Your task to perform on an android device: turn off location history Image 0: 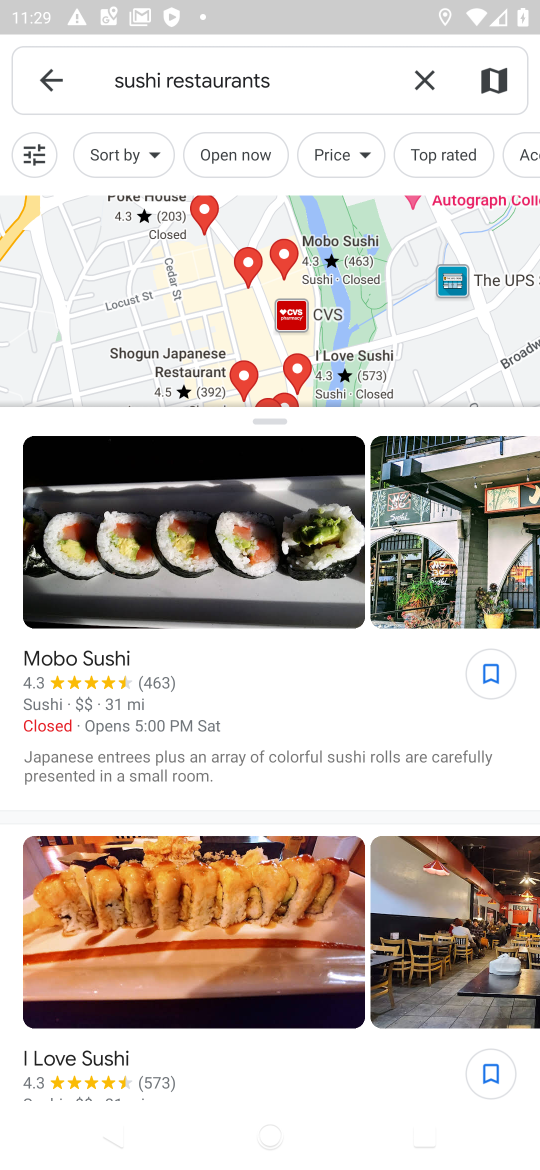
Step 0: press home button
Your task to perform on an android device: turn off location history Image 1: 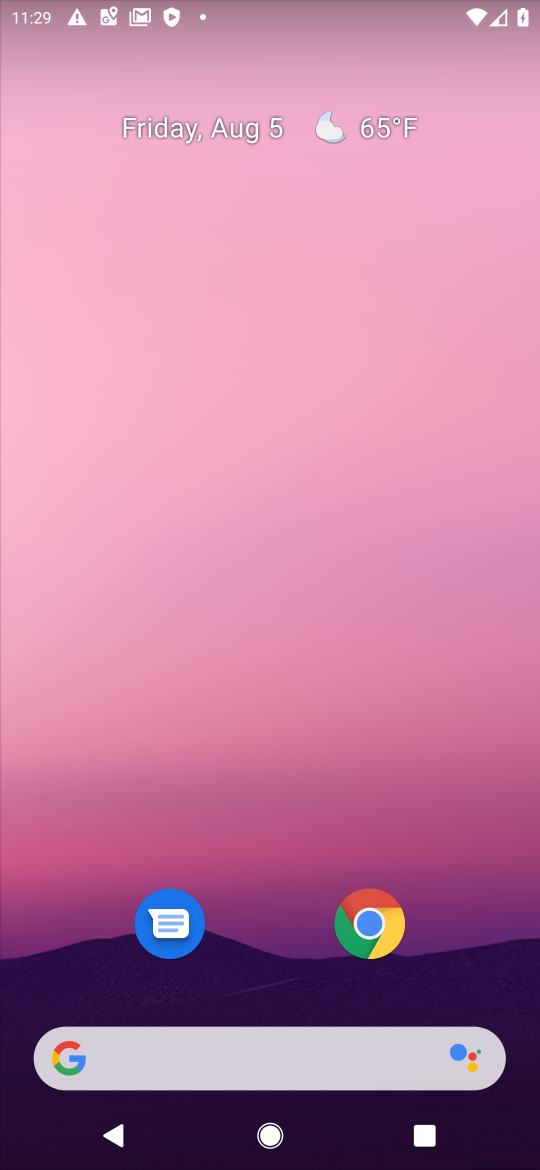
Step 1: drag from (216, 1054) to (161, 24)
Your task to perform on an android device: turn off location history Image 2: 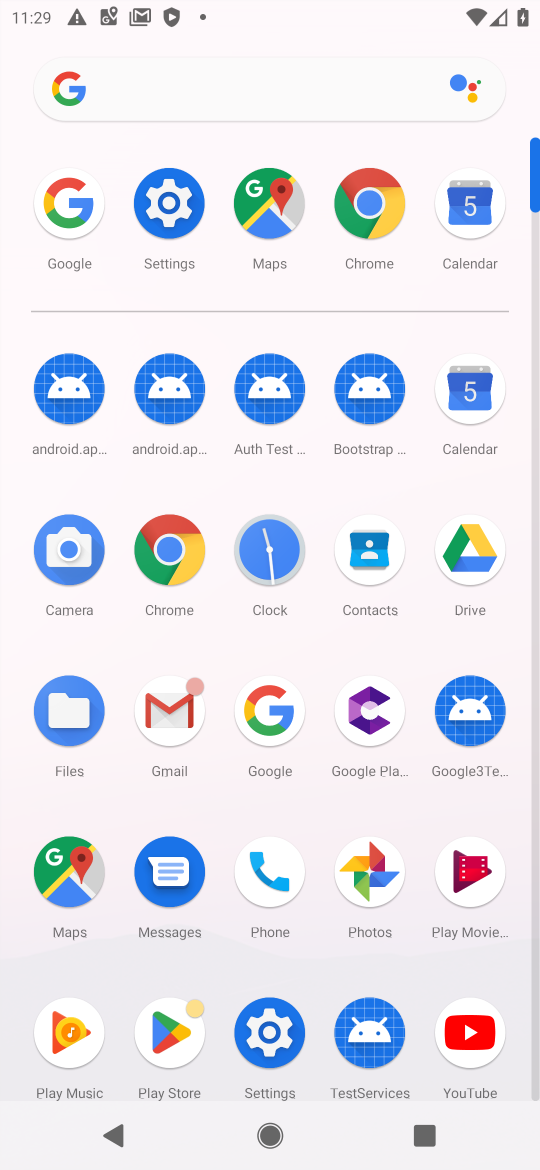
Step 2: click (266, 1033)
Your task to perform on an android device: turn off location history Image 3: 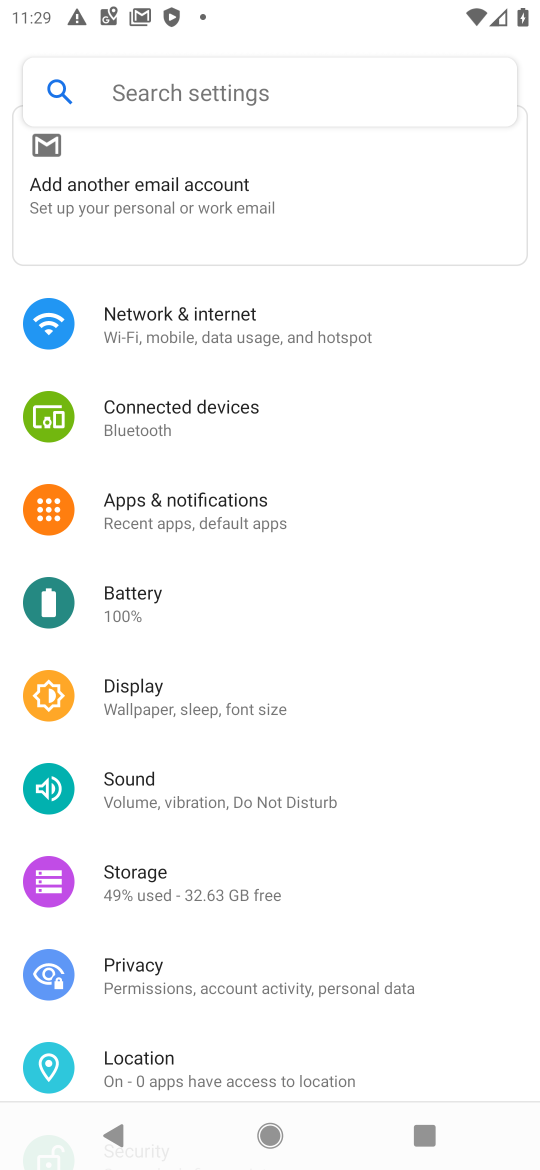
Step 3: click (174, 1059)
Your task to perform on an android device: turn off location history Image 4: 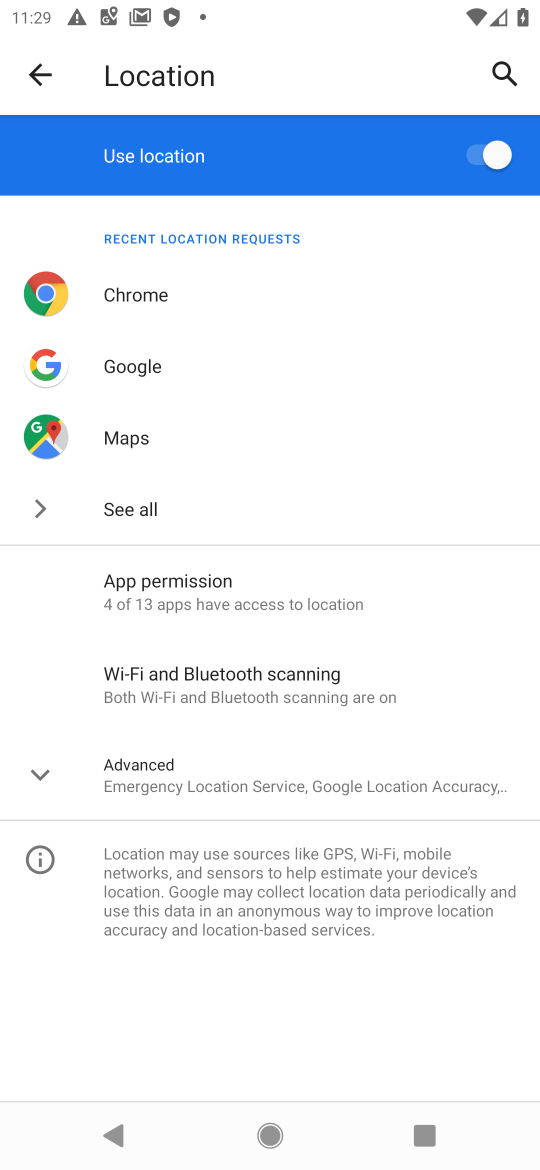
Step 4: click (197, 780)
Your task to perform on an android device: turn off location history Image 5: 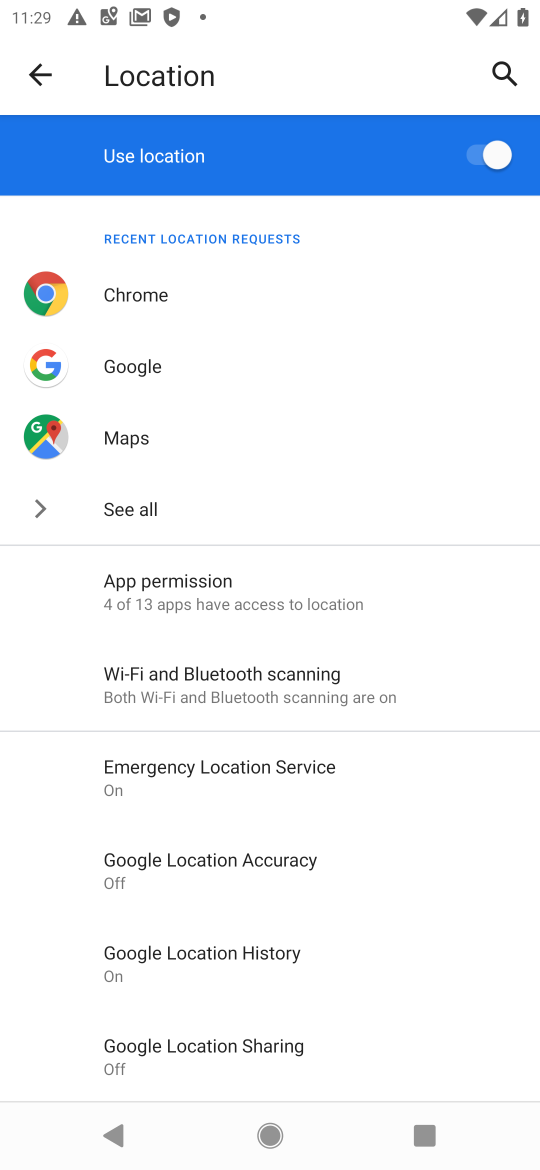
Step 5: click (265, 957)
Your task to perform on an android device: turn off location history Image 6: 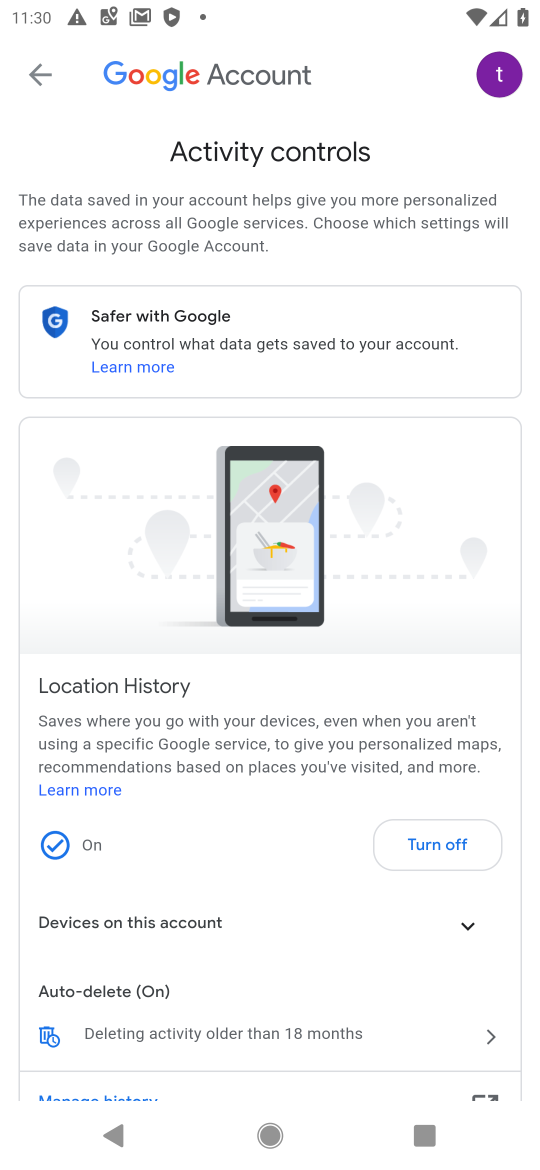
Step 6: click (423, 832)
Your task to perform on an android device: turn off location history Image 7: 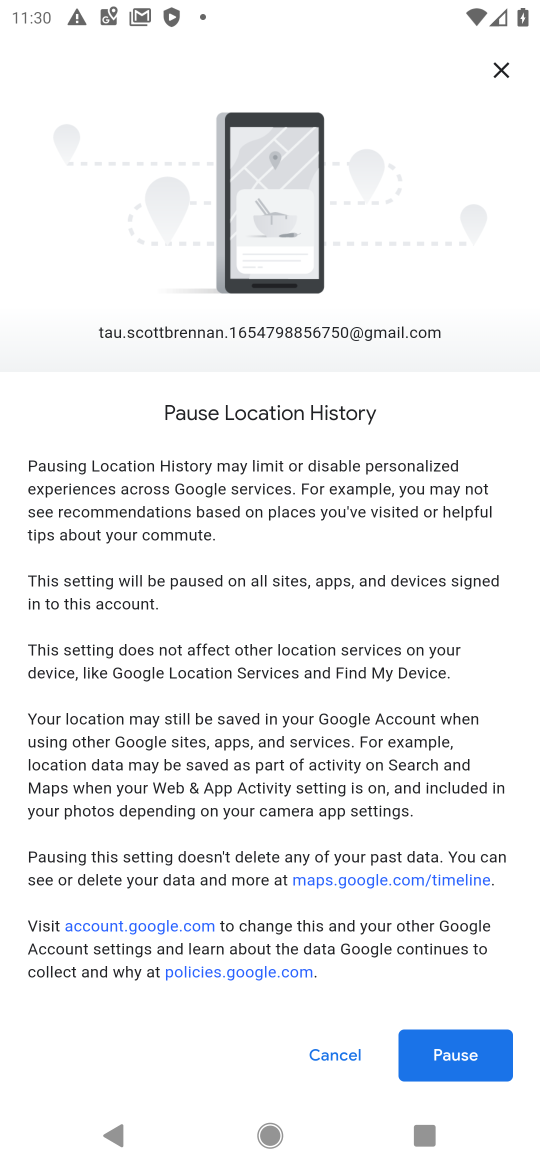
Step 7: task complete